Your task to perform on an android device: Open maps Image 0: 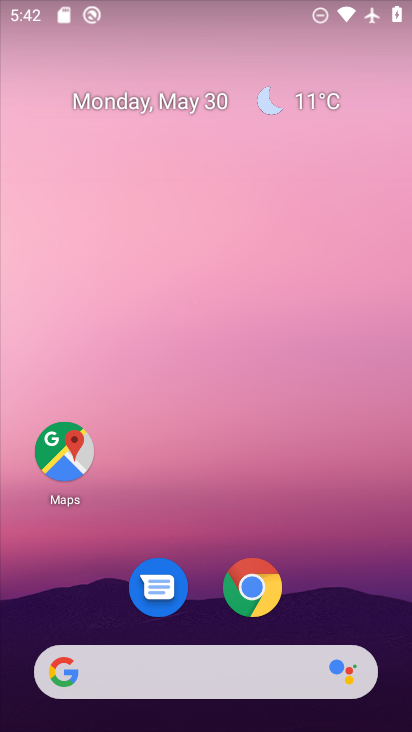
Step 0: drag from (303, 521) to (198, 25)
Your task to perform on an android device: Open maps Image 1: 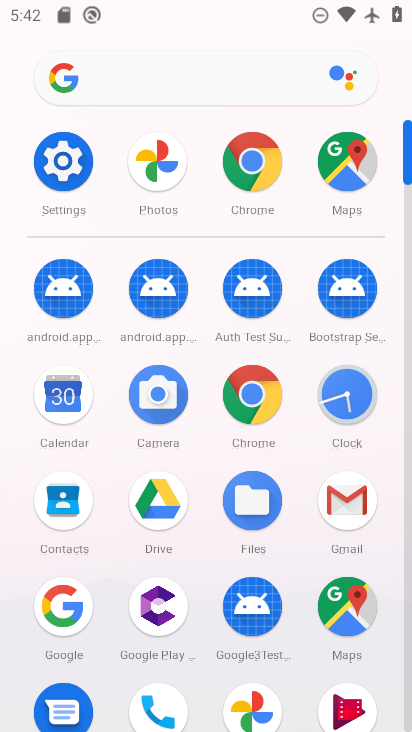
Step 1: drag from (19, 625) to (7, 231)
Your task to perform on an android device: Open maps Image 2: 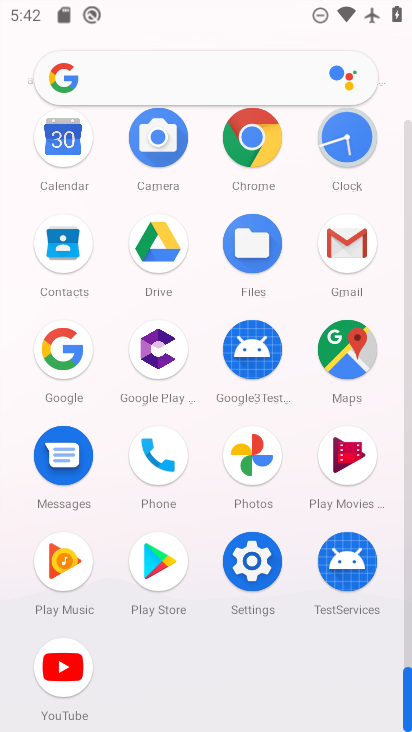
Step 2: click (345, 345)
Your task to perform on an android device: Open maps Image 3: 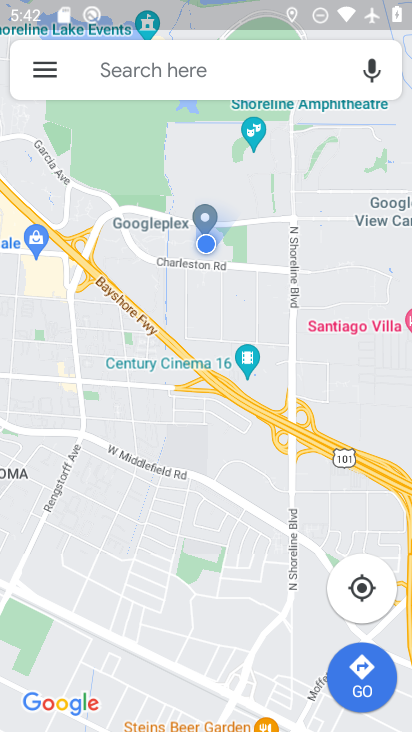
Step 3: click (224, 69)
Your task to perform on an android device: Open maps Image 4: 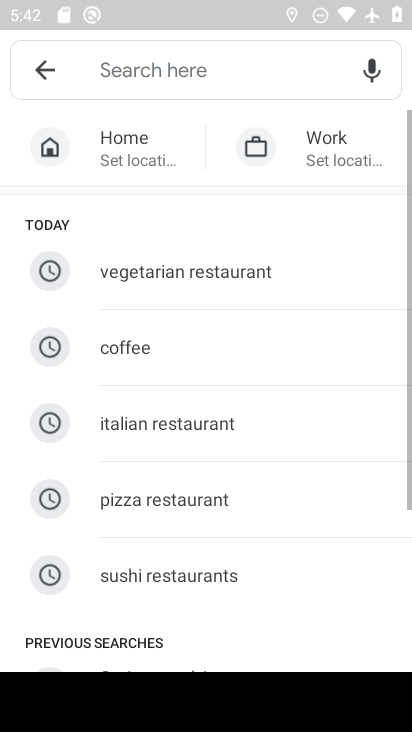
Step 4: click (42, 60)
Your task to perform on an android device: Open maps Image 5: 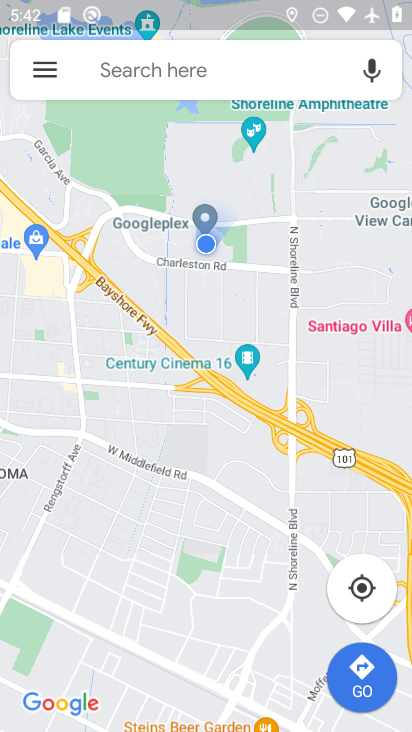
Step 5: task complete